Your task to perform on an android device: What's on my calendar today? Image 0: 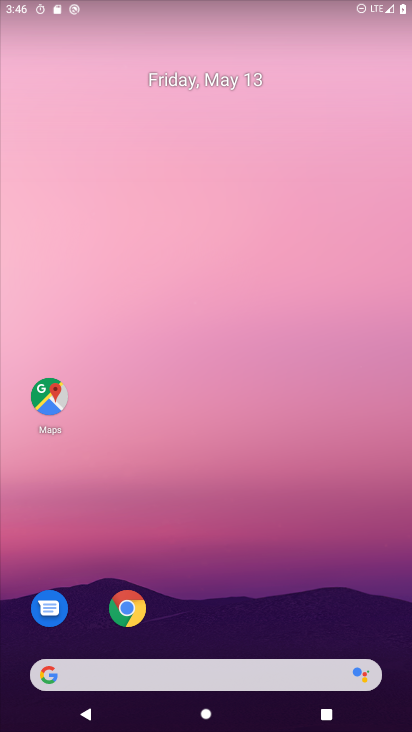
Step 0: drag from (227, 607) to (160, 57)
Your task to perform on an android device: What's on my calendar today? Image 1: 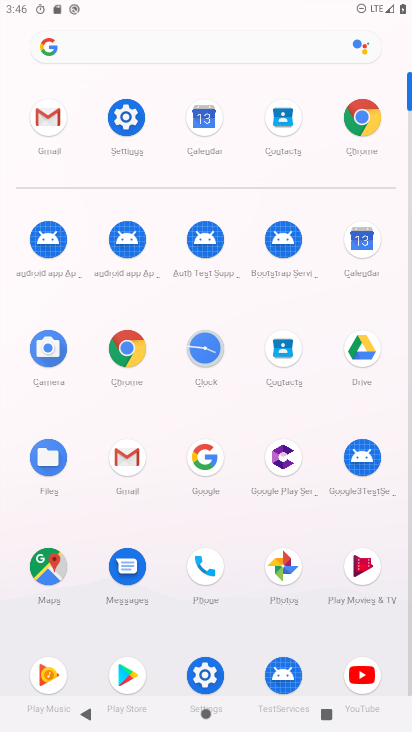
Step 1: click (208, 124)
Your task to perform on an android device: What's on my calendar today? Image 2: 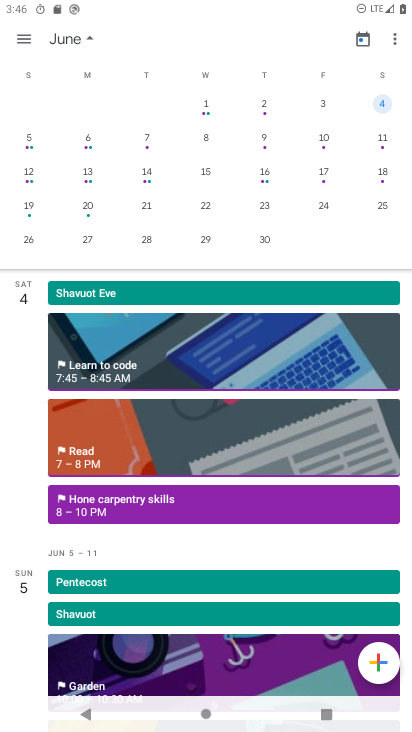
Step 2: drag from (45, 114) to (352, 118)
Your task to perform on an android device: What's on my calendar today? Image 3: 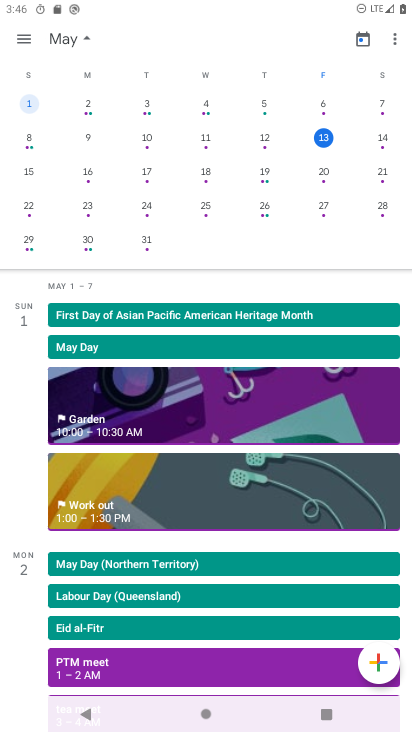
Step 3: click (326, 138)
Your task to perform on an android device: What's on my calendar today? Image 4: 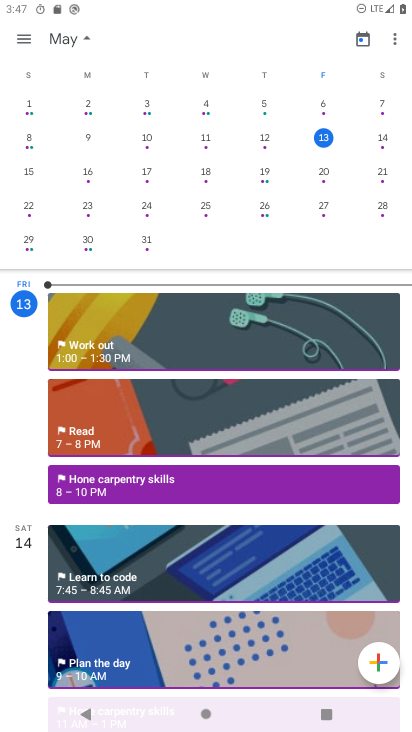
Step 4: task complete